Your task to perform on an android device: What's the weather going to be tomorrow? Image 0: 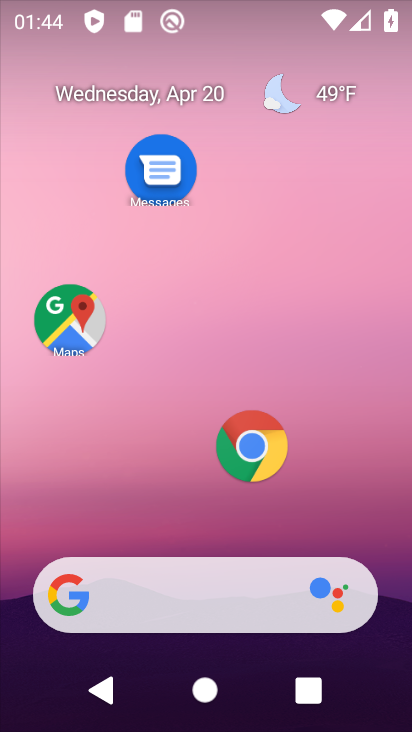
Step 0: click (313, 93)
Your task to perform on an android device: What's the weather going to be tomorrow? Image 1: 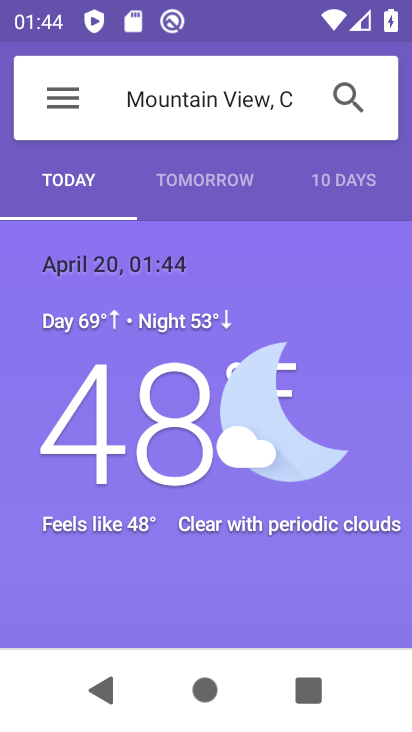
Step 1: click (226, 187)
Your task to perform on an android device: What's the weather going to be tomorrow? Image 2: 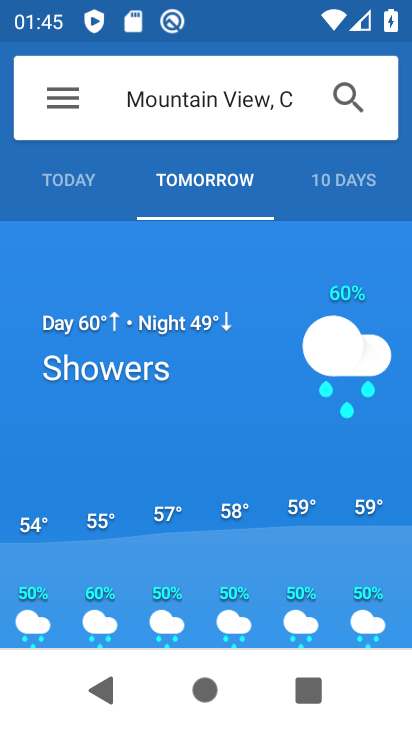
Step 2: task complete